Your task to perform on an android device: remove spam from my inbox in the gmail app Image 0: 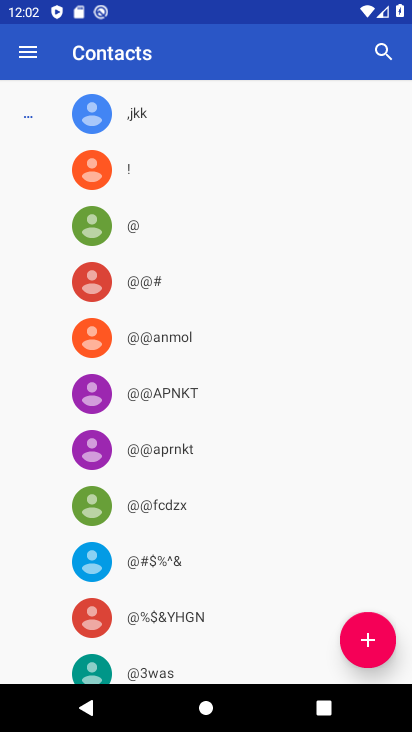
Step 0: press home button
Your task to perform on an android device: remove spam from my inbox in the gmail app Image 1: 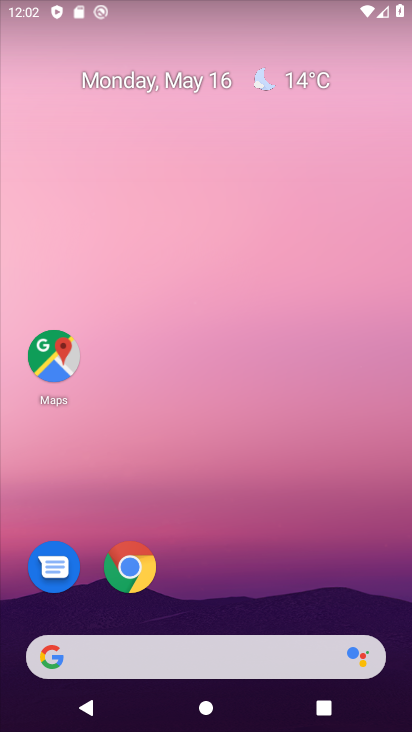
Step 1: drag from (292, 507) to (184, 100)
Your task to perform on an android device: remove spam from my inbox in the gmail app Image 2: 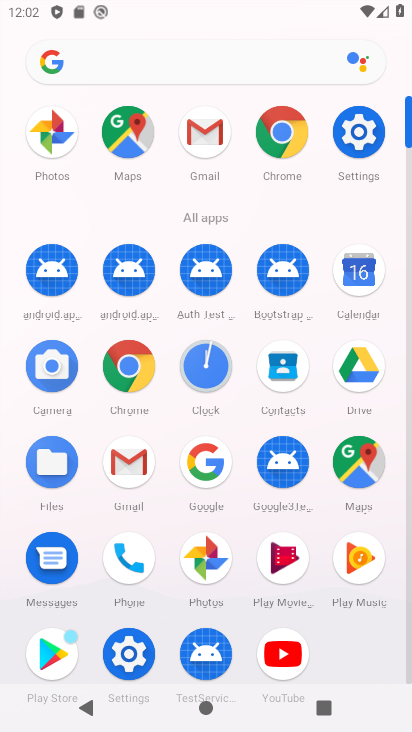
Step 2: click (207, 133)
Your task to perform on an android device: remove spam from my inbox in the gmail app Image 3: 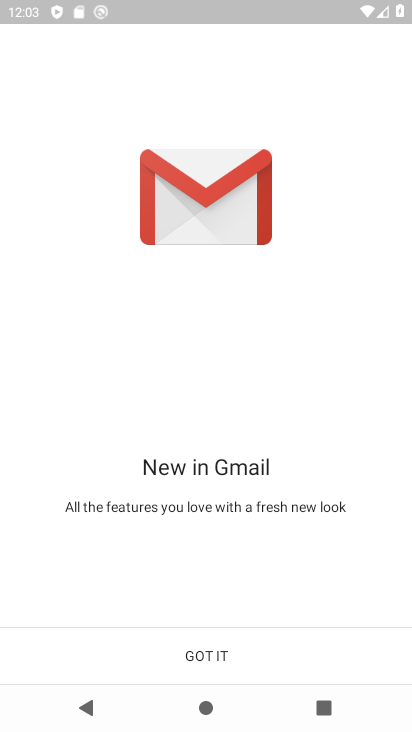
Step 3: click (212, 649)
Your task to perform on an android device: remove spam from my inbox in the gmail app Image 4: 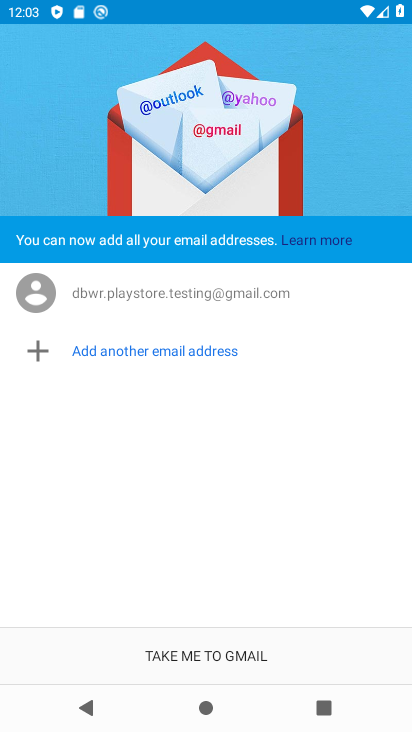
Step 4: click (216, 662)
Your task to perform on an android device: remove spam from my inbox in the gmail app Image 5: 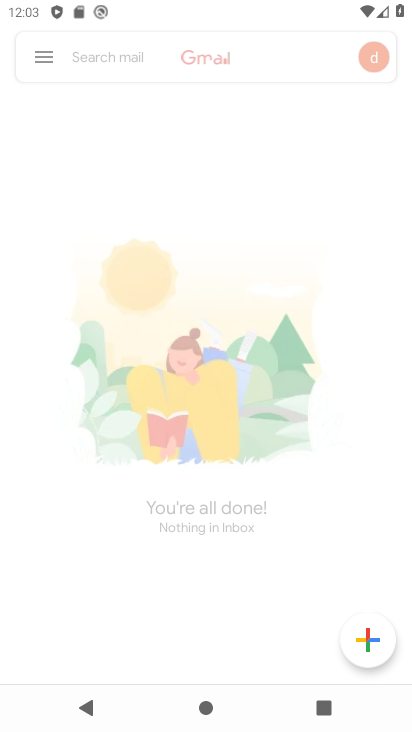
Step 5: click (41, 57)
Your task to perform on an android device: remove spam from my inbox in the gmail app Image 6: 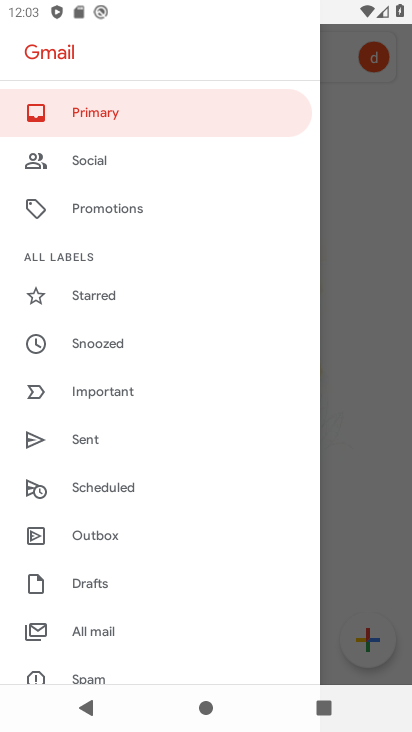
Step 6: drag from (186, 593) to (196, 285)
Your task to perform on an android device: remove spam from my inbox in the gmail app Image 7: 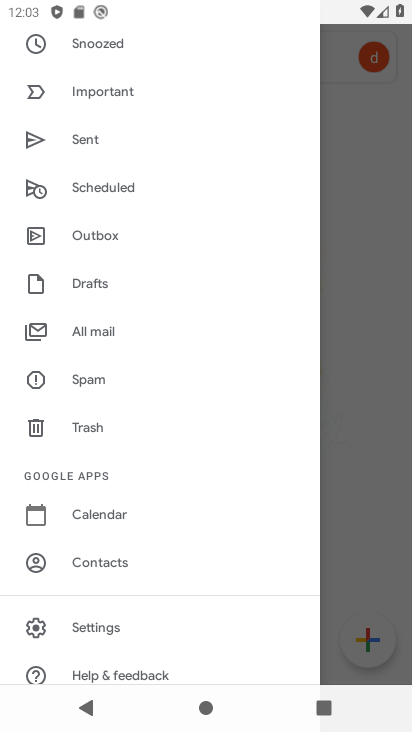
Step 7: click (96, 384)
Your task to perform on an android device: remove spam from my inbox in the gmail app Image 8: 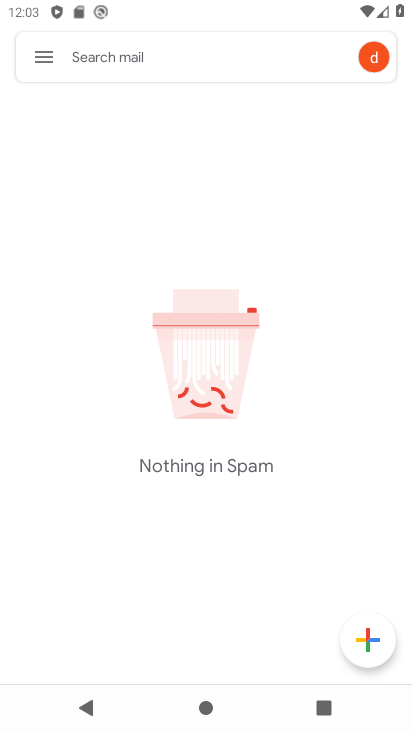
Step 8: task complete